Your task to perform on an android device: allow notifications from all sites in the chrome app Image 0: 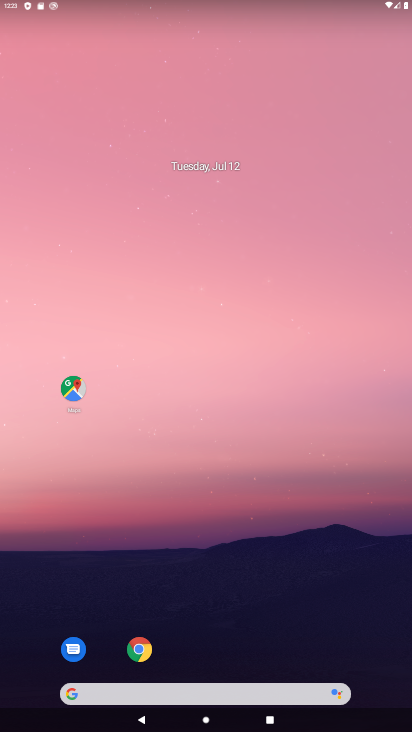
Step 0: click (139, 653)
Your task to perform on an android device: allow notifications from all sites in the chrome app Image 1: 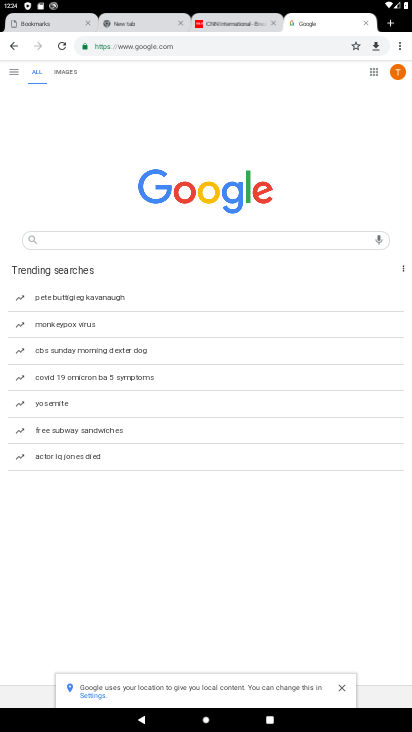
Step 1: click (397, 52)
Your task to perform on an android device: allow notifications from all sites in the chrome app Image 2: 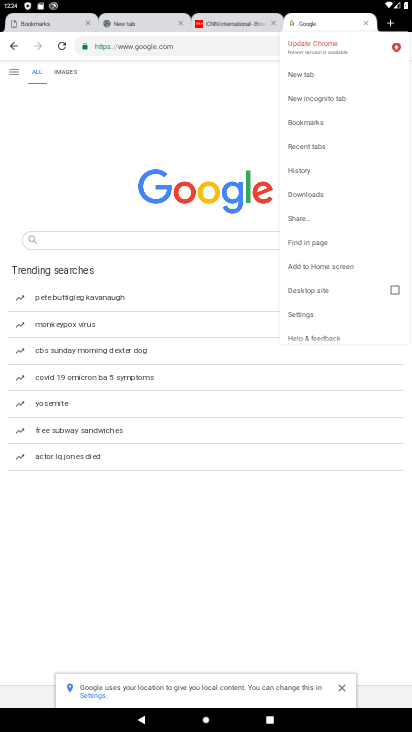
Step 2: click (306, 315)
Your task to perform on an android device: allow notifications from all sites in the chrome app Image 3: 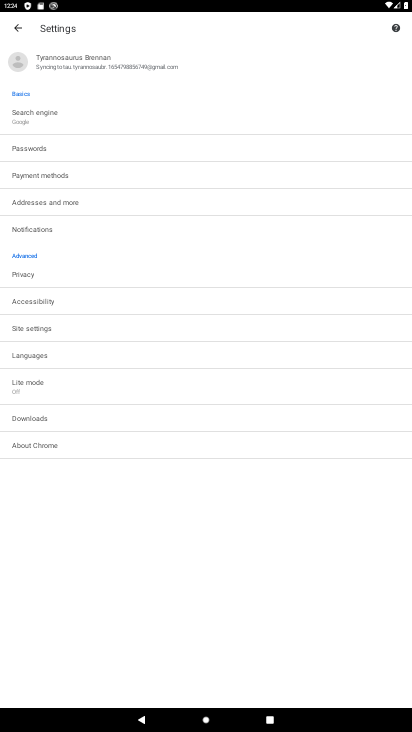
Step 3: click (146, 336)
Your task to perform on an android device: allow notifications from all sites in the chrome app Image 4: 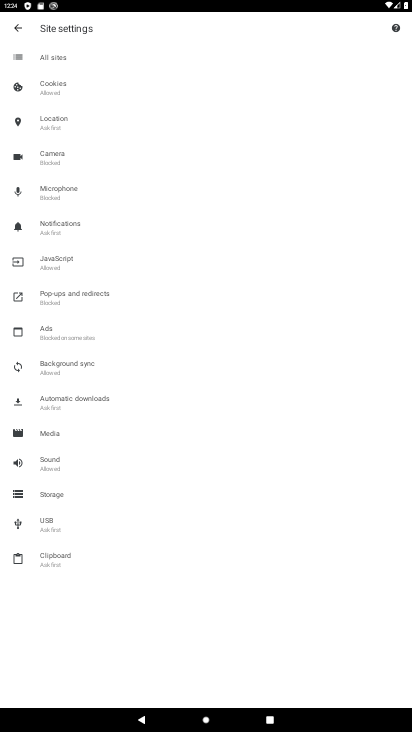
Step 4: click (106, 65)
Your task to perform on an android device: allow notifications from all sites in the chrome app Image 5: 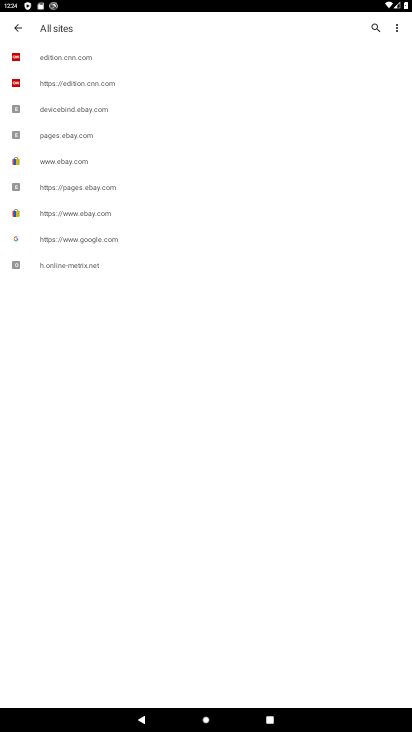
Step 5: click (16, 28)
Your task to perform on an android device: allow notifications from all sites in the chrome app Image 6: 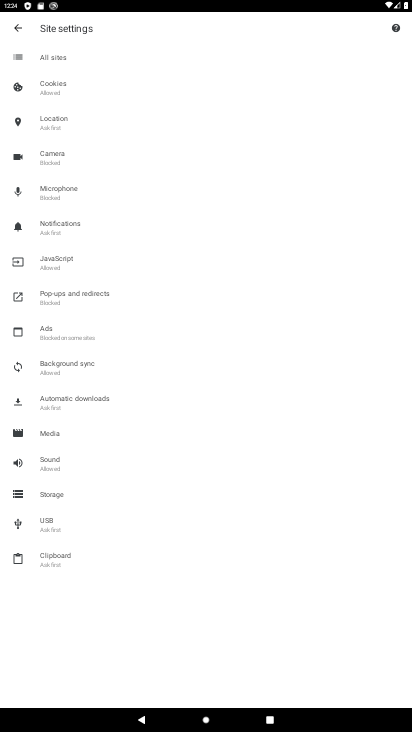
Step 6: click (74, 95)
Your task to perform on an android device: allow notifications from all sites in the chrome app Image 7: 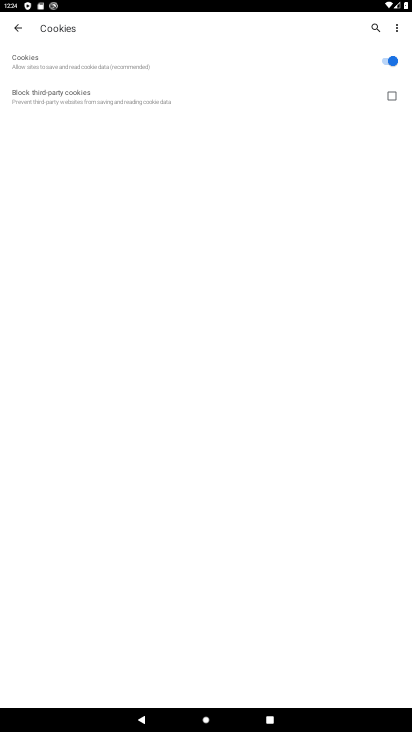
Step 7: task complete